Your task to perform on an android device: Search for sushi restaurants on Maps Image 0: 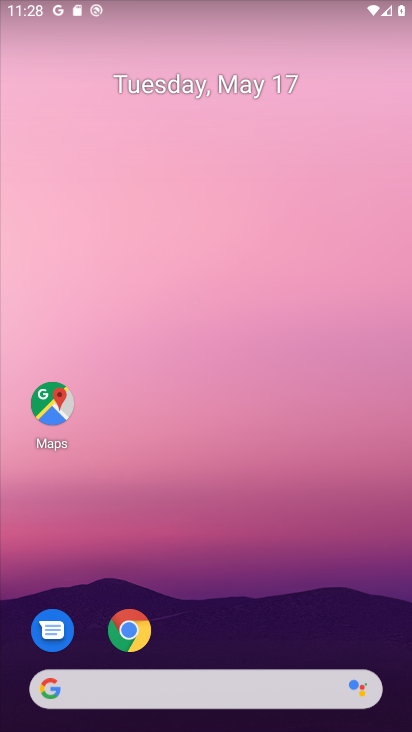
Step 0: click (51, 401)
Your task to perform on an android device: Search for sushi restaurants on Maps Image 1: 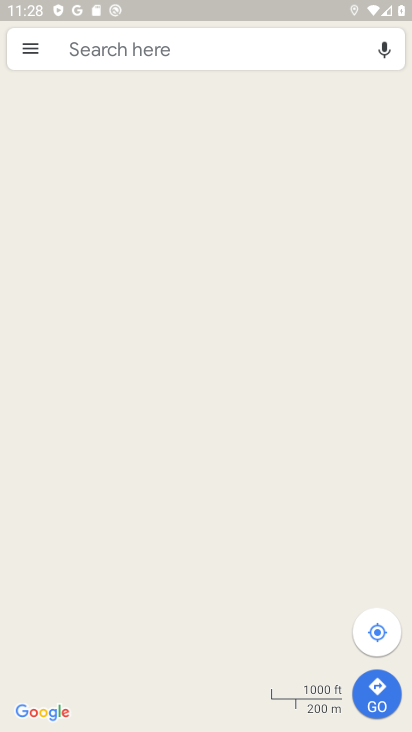
Step 1: click (163, 46)
Your task to perform on an android device: Search for sushi restaurants on Maps Image 2: 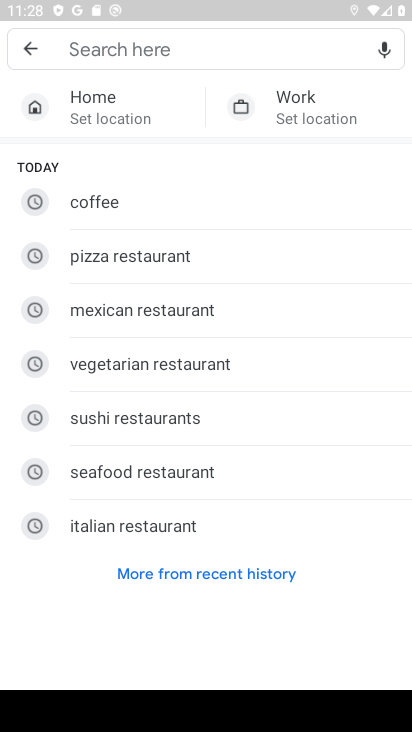
Step 2: type "sushi restaurants"
Your task to perform on an android device: Search for sushi restaurants on Maps Image 3: 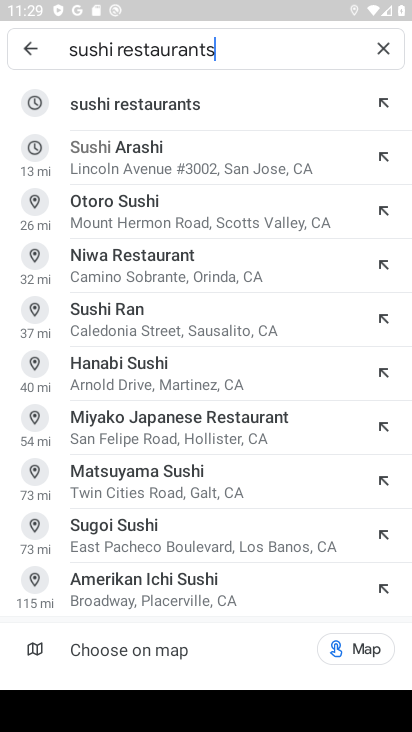
Step 3: click (212, 96)
Your task to perform on an android device: Search for sushi restaurants on Maps Image 4: 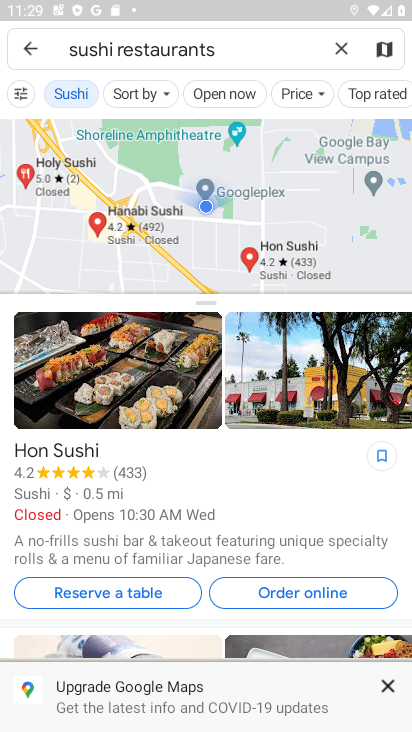
Step 4: click (395, 690)
Your task to perform on an android device: Search for sushi restaurants on Maps Image 5: 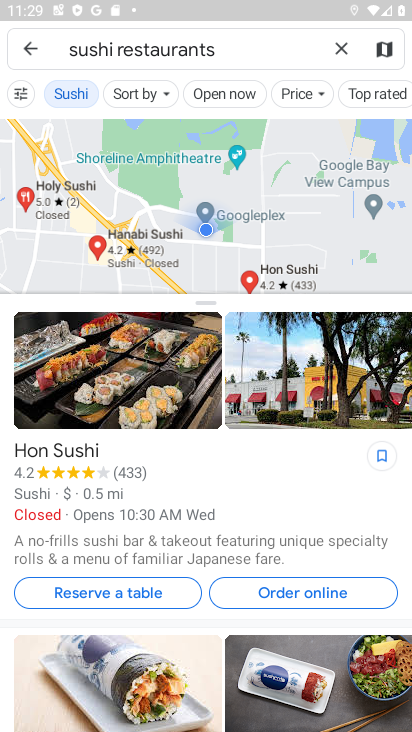
Step 5: task complete